Your task to perform on an android device: empty trash in the gmail app Image 0: 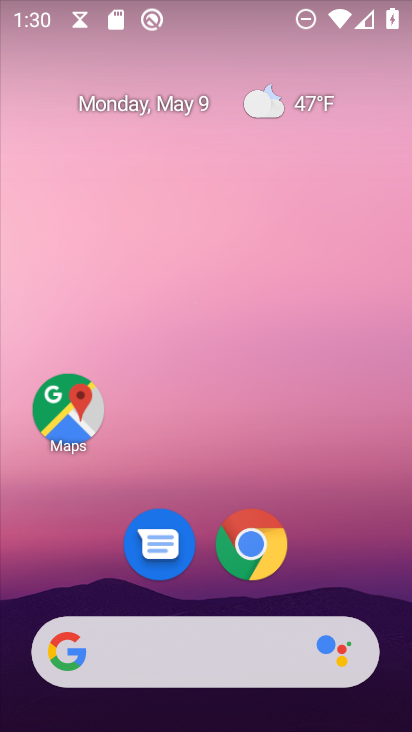
Step 0: drag from (350, 507) to (300, 117)
Your task to perform on an android device: empty trash in the gmail app Image 1: 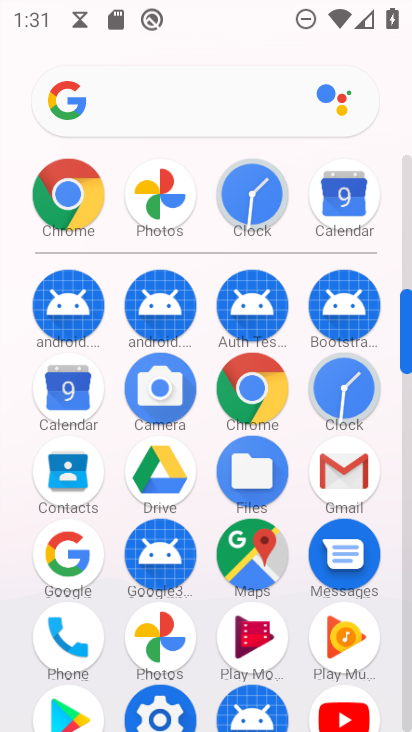
Step 1: click (337, 466)
Your task to perform on an android device: empty trash in the gmail app Image 2: 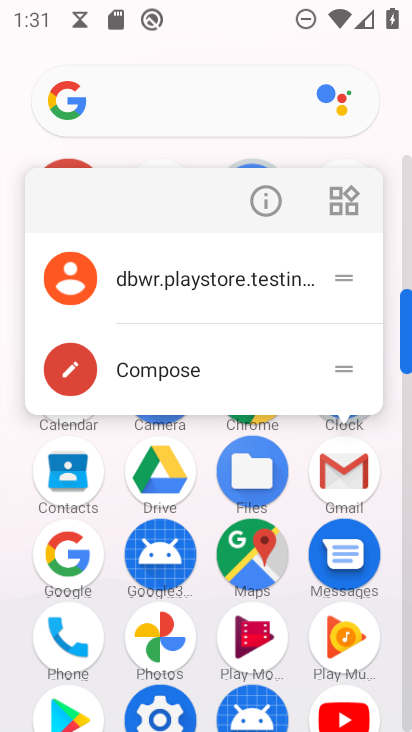
Step 2: click (337, 466)
Your task to perform on an android device: empty trash in the gmail app Image 3: 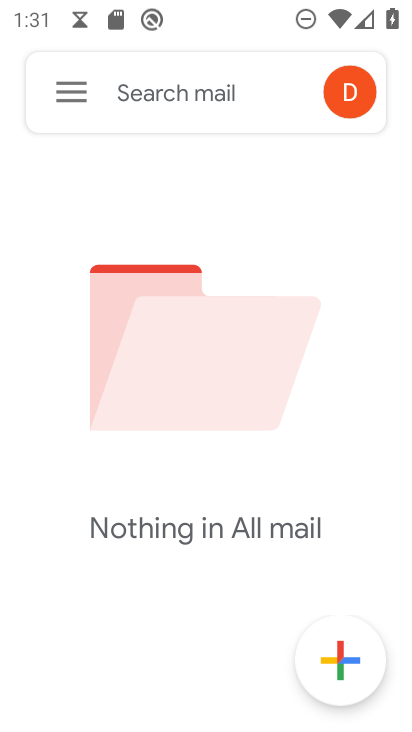
Step 3: click (66, 75)
Your task to perform on an android device: empty trash in the gmail app Image 4: 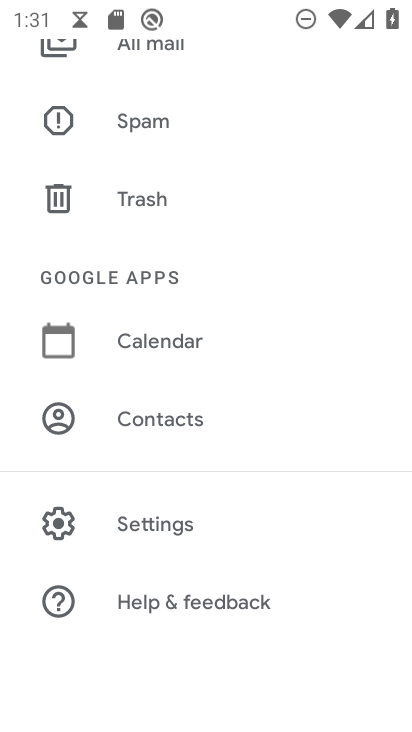
Step 4: drag from (202, 202) to (180, 324)
Your task to perform on an android device: empty trash in the gmail app Image 5: 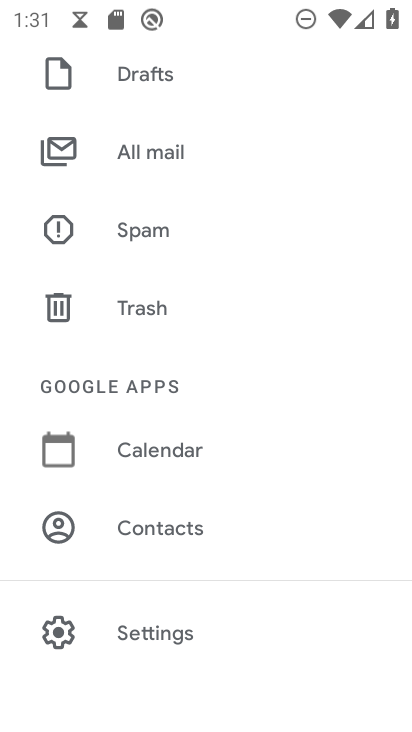
Step 5: click (154, 305)
Your task to perform on an android device: empty trash in the gmail app Image 6: 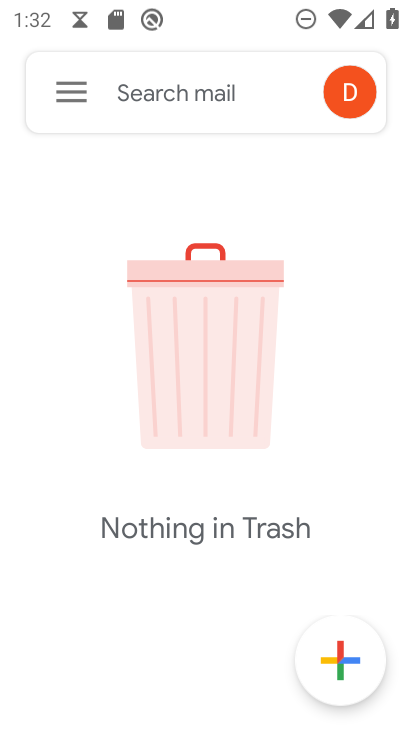
Step 6: task complete